Your task to perform on an android device: check data usage Image 0: 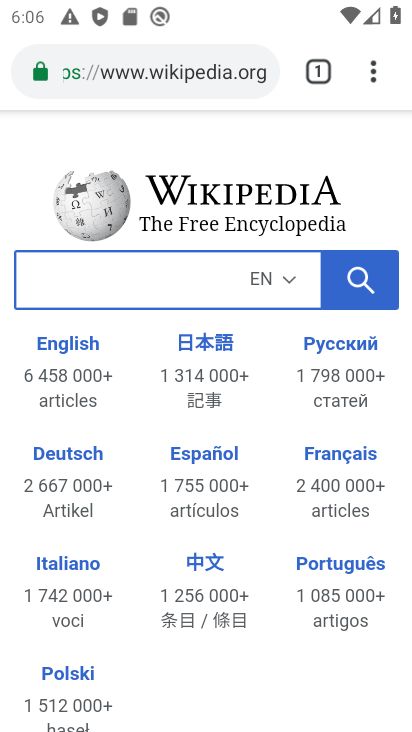
Step 0: press home button
Your task to perform on an android device: check data usage Image 1: 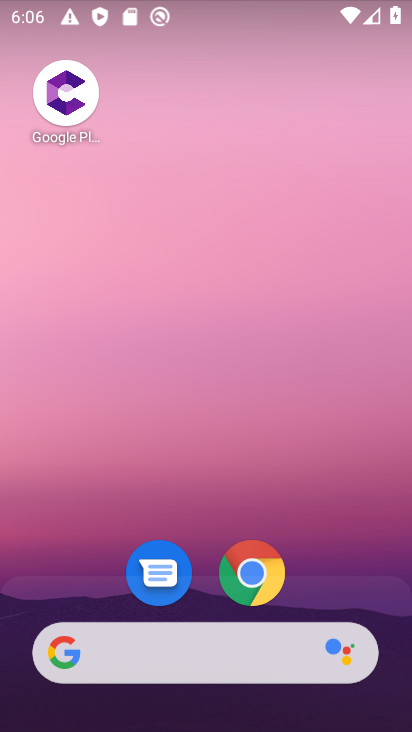
Step 1: drag from (216, 586) to (199, 134)
Your task to perform on an android device: check data usage Image 2: 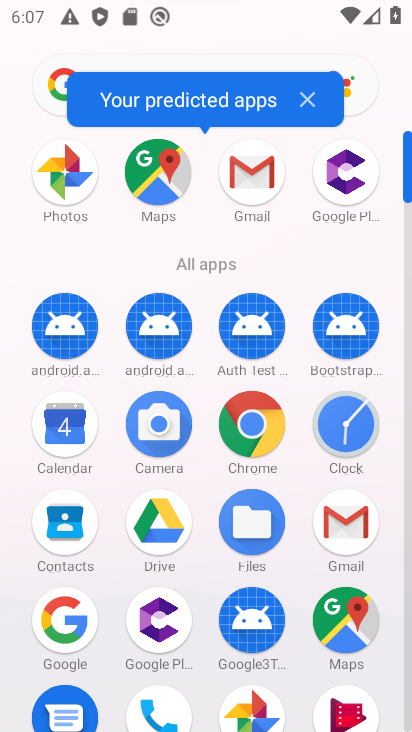
Step 2: drag from (298, 321) to (168, 19)
Your task to perform on an android device: check data usage Image 3: 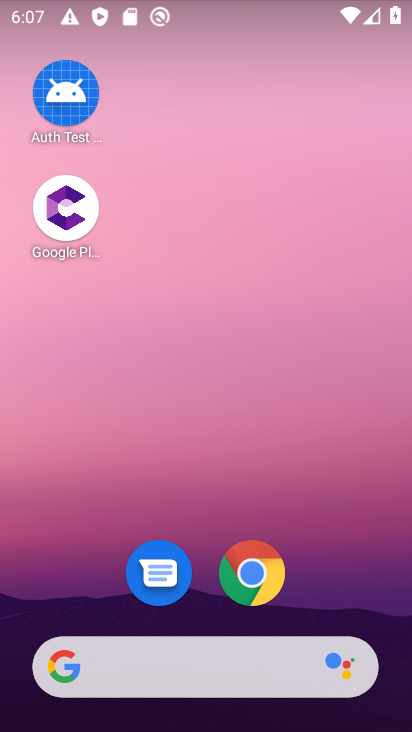
Step 3: press home button
Your task to perform on an android device: check data usage Image 4: 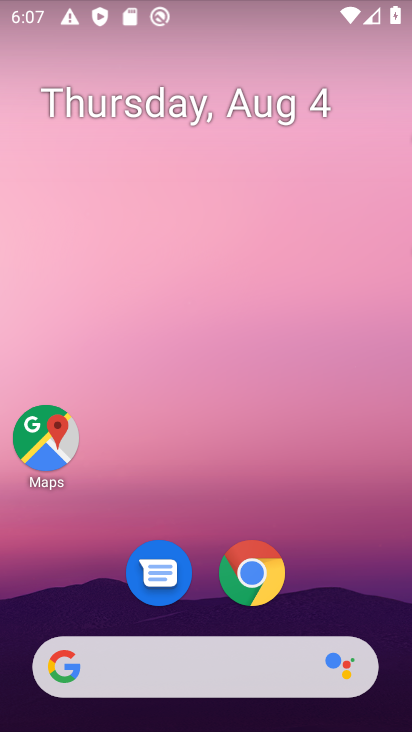
Step 4: drag from (321, 569) to (310, 73)
Your task to perform on an android device: check data usage Image 5: 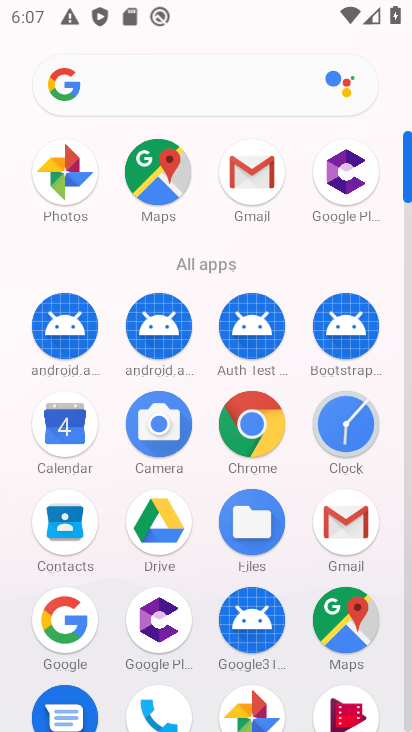
Step 5: drag from (289, 660) to (293, 97)
Your task to perform on an android device: check data usage Image 6: 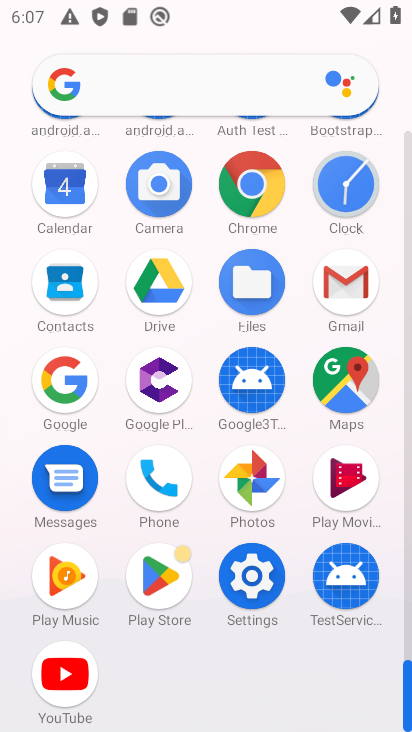
Step 6: click (259, 587)
Your task to perform on an android device: check data usage Image 7: 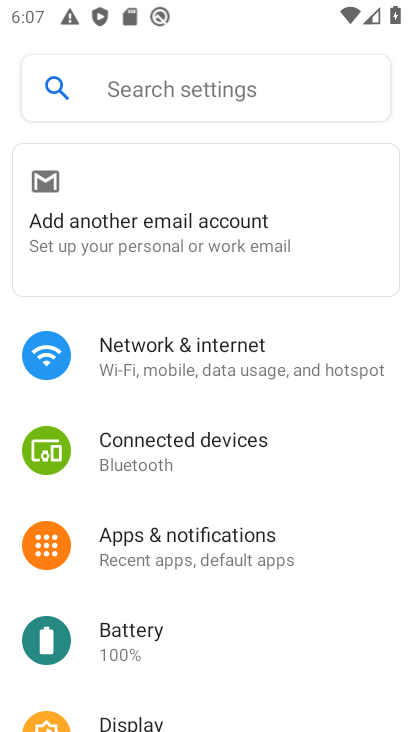
Step 7: click (151, 378)
Your task to perform on an android device: check data usage Image 8: 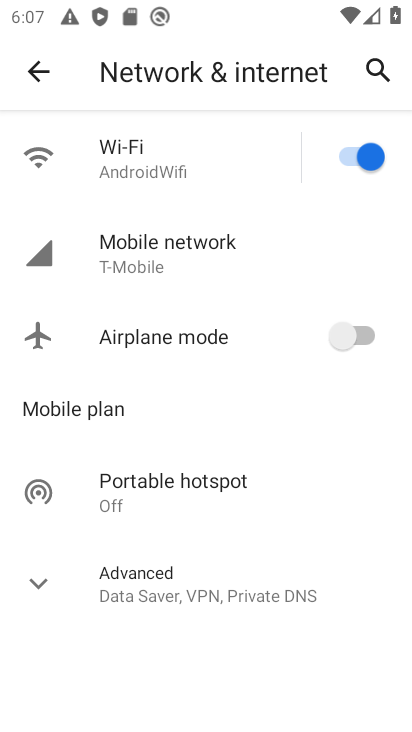
Step 8: click (121, 263)
Your task to perform on an android device: check data usage Image 9: 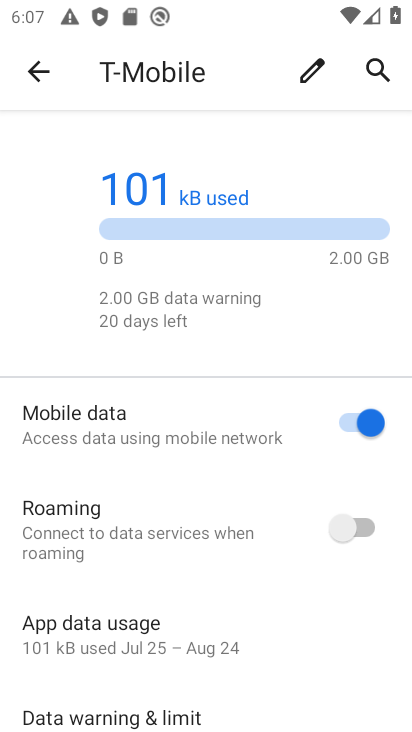
Step 9: click (109, 637)
Your task to perform on an android device: check data usage Image 10: 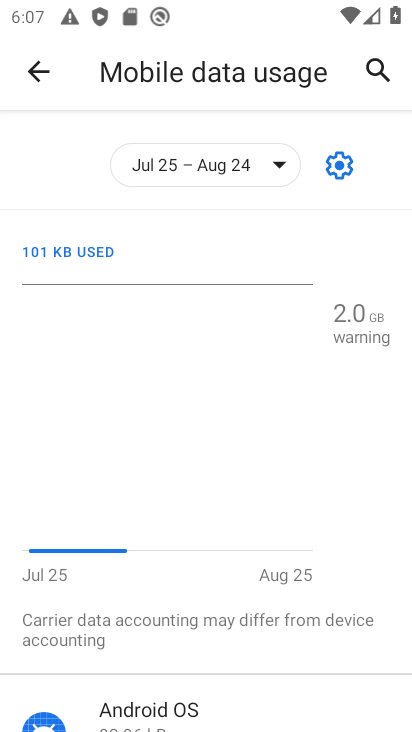
Step 10: task complete